Your task to perform on an android device: Open eBay Image 0: 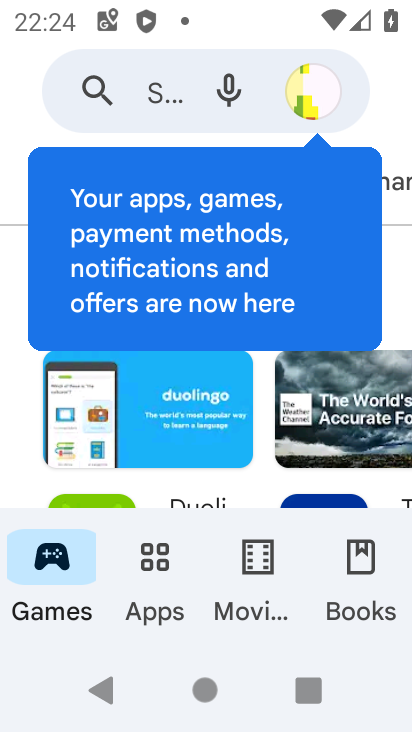
Step 0: press home button
Your task to perform on an android device: Open eBay Image 1: 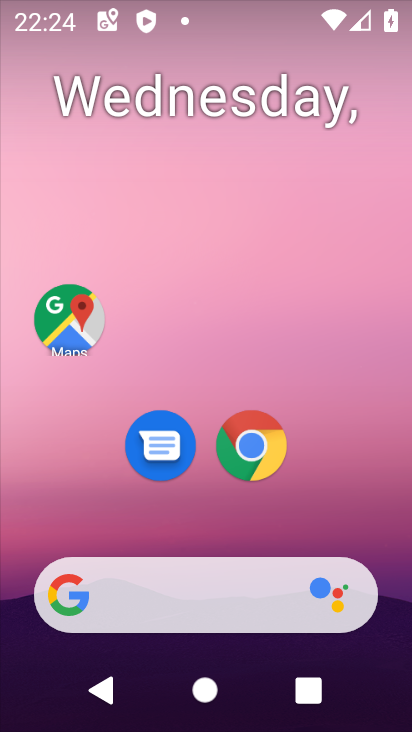
Step 1: click (246, 456)
Your task to perform on an android device: Open eBay Image 2: 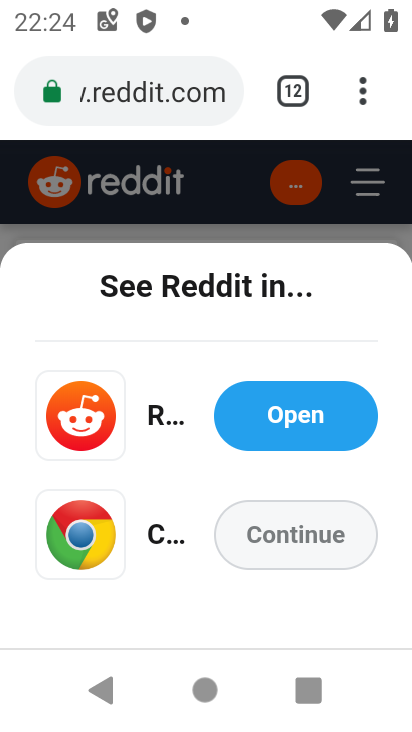
Step 2: click (350, 82)
Your task to perform on an android device: Open eBay Image 3: 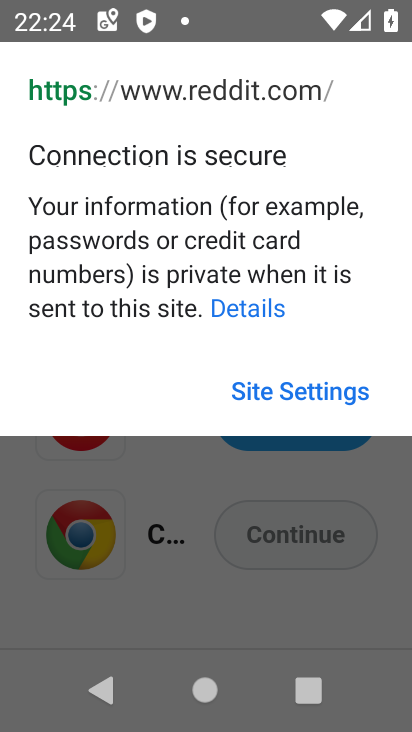
Step 3: press home button
Your task to perform on an android device: Open eBay Image 4: 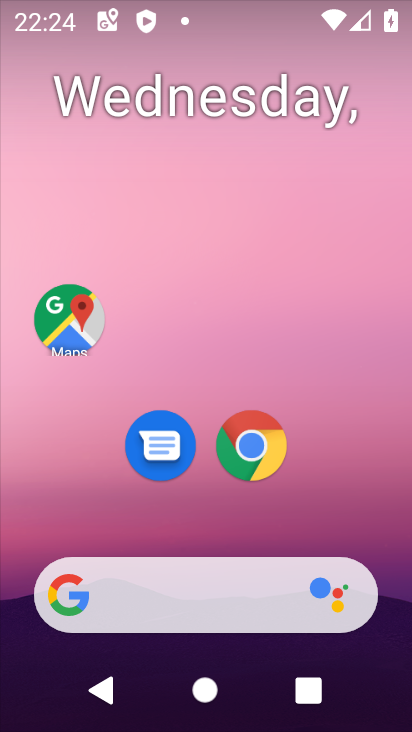
Step 4: click (244, 443)
Your task to perform on an android device: Open eBay Image 5: 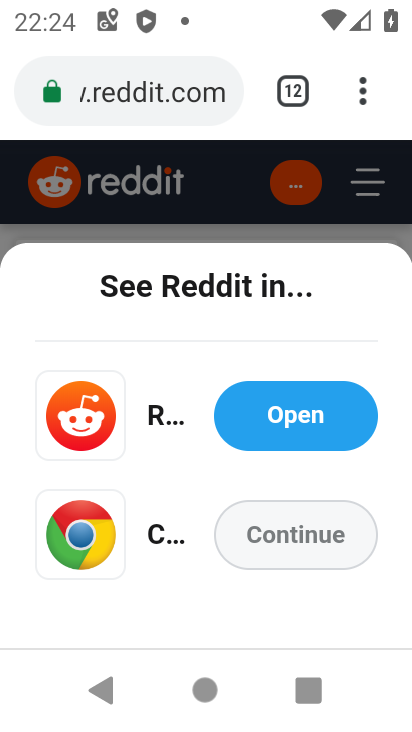
Step 5: press back button
Your task to perform on an android device: Open eBay Image 6: 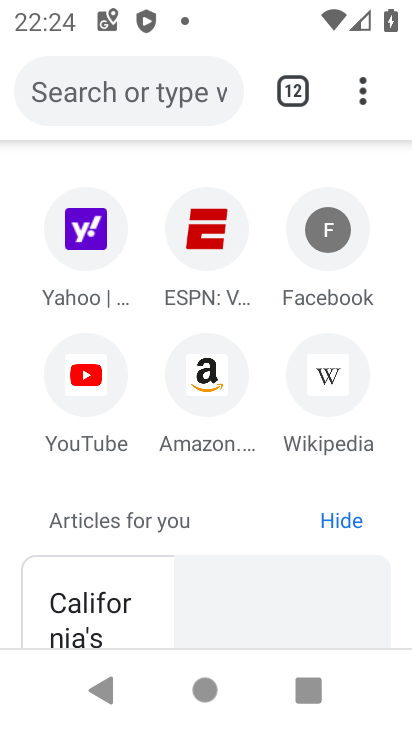
Step 6: click (379, 81)
Your task to perform on an android device: Open eBay Image 7: 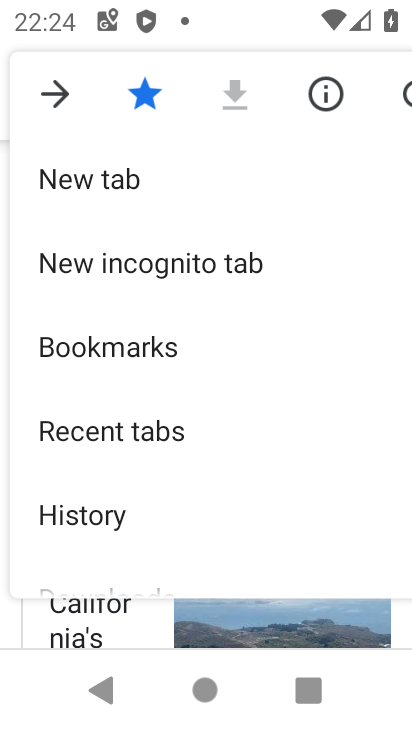
Step 7: click (118, 173)
Your task to perform on an android device: Open eBay Image 8: 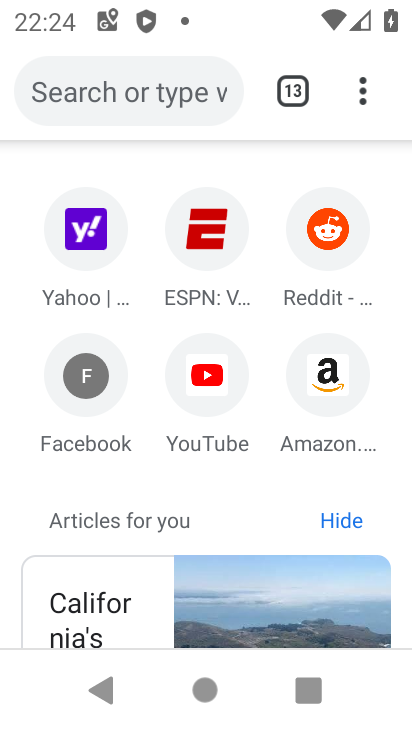
Step 8: click (168, 86)
Your task to perform on an android device: Open eBay Image 9: 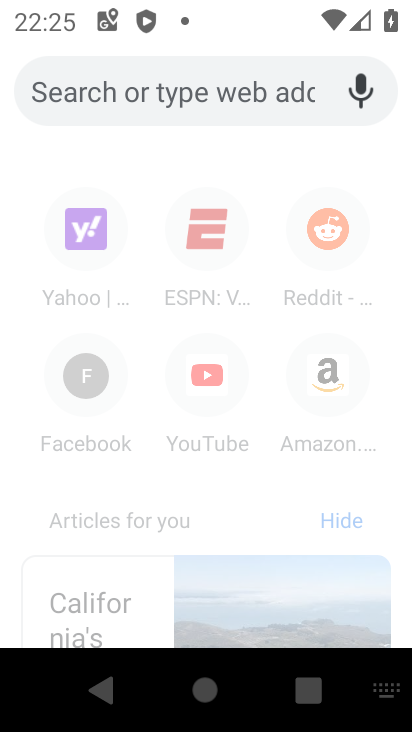
Step 9: type "eBay"
Your task to perform on an android device: Open eBay Image 10: 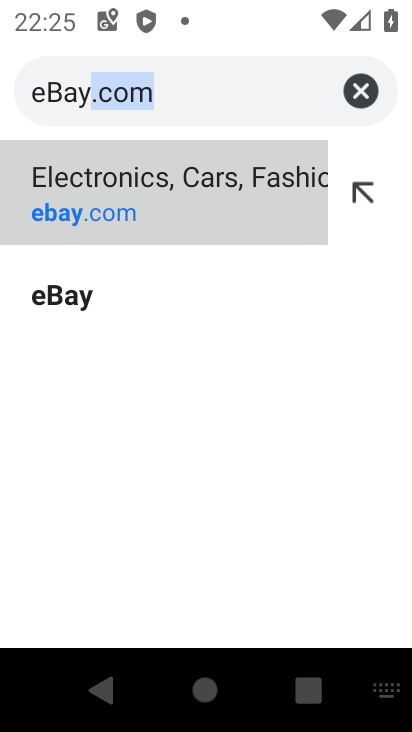
Step 10: click (88, 310)
Your task to perform on an android device: Open eBay Image 11: 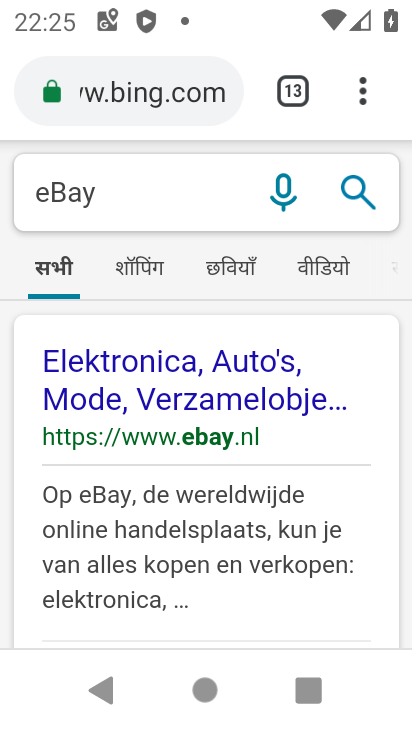
Step 11: task complete